Your task to perform on an android device: Go to accessibility settings Image 0: 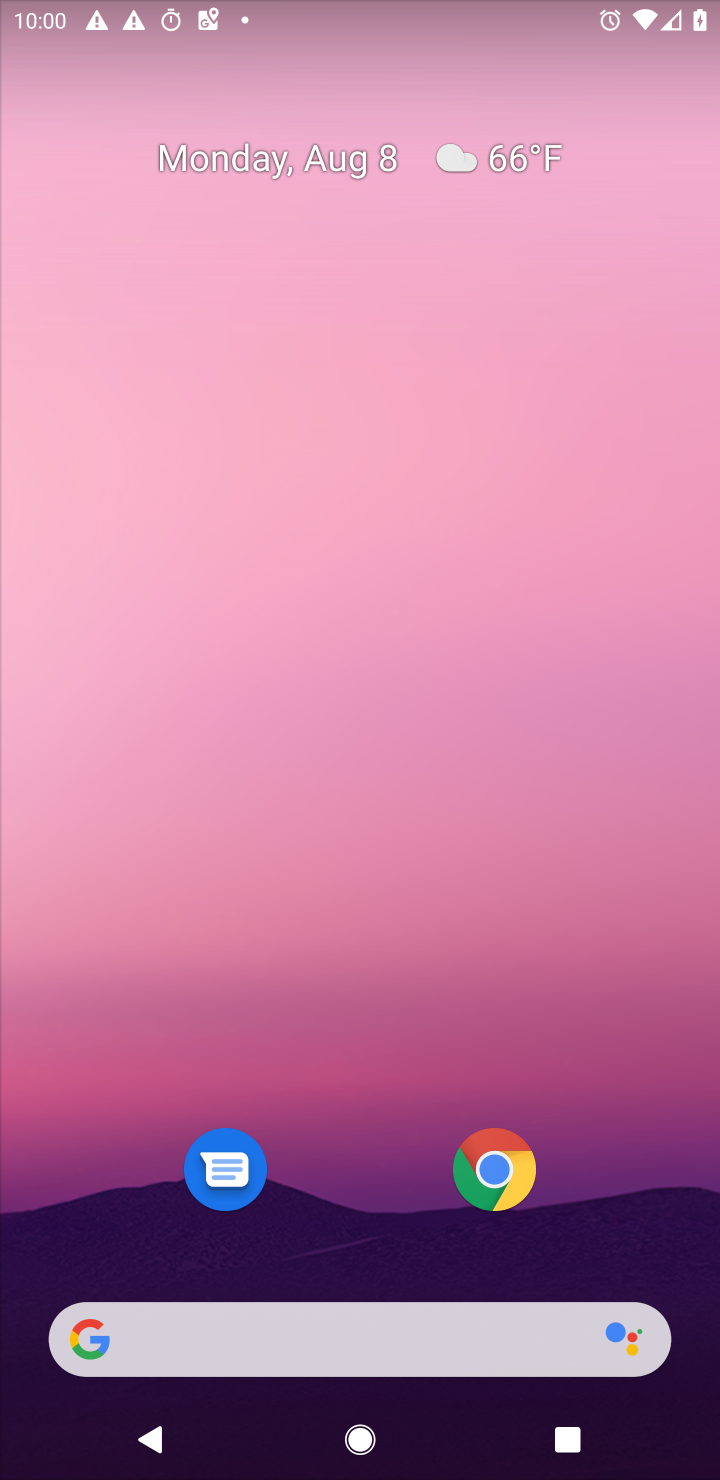
Step 0: drag from (406, 1208) to (509, 168)
Your task to perform on an android device: Go to accessibility settings Image 1: 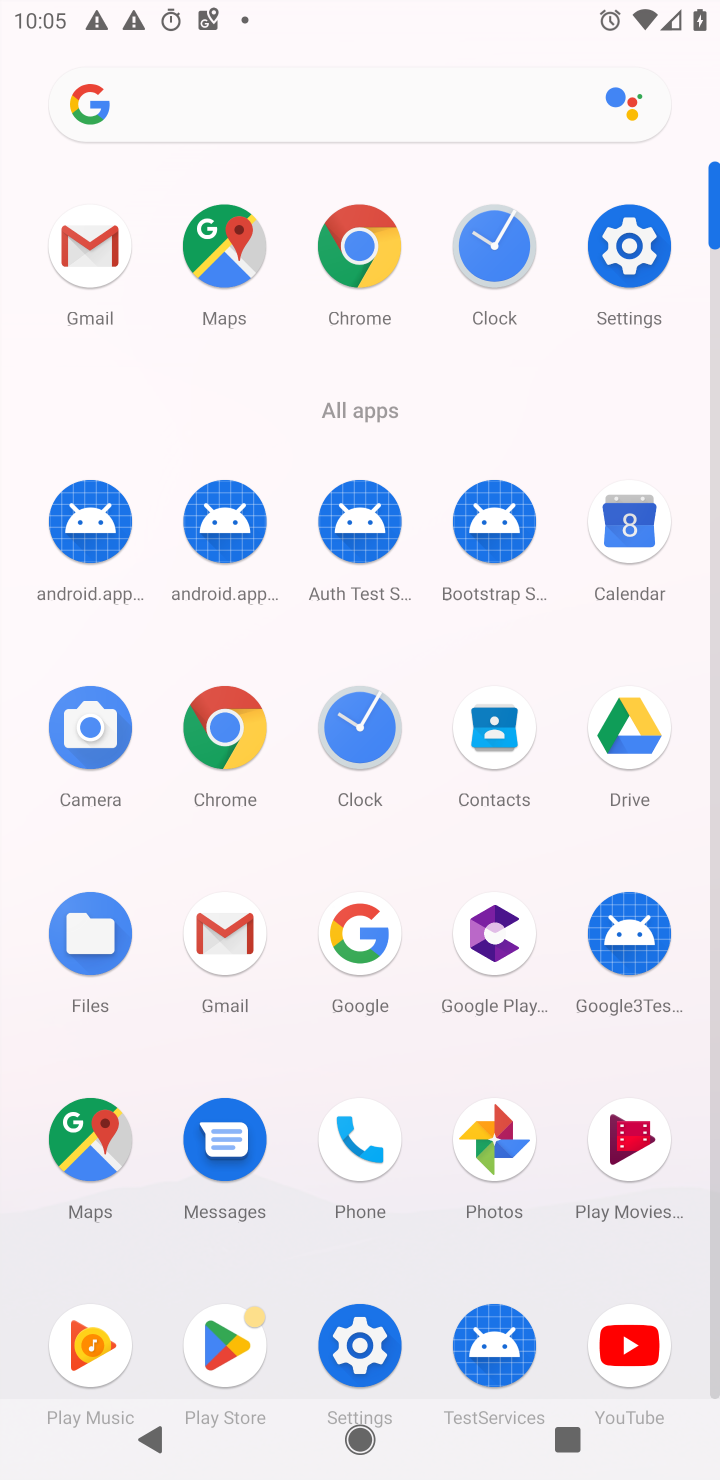
Step 1: click (601, 239)
Your task to perform on an android device: Go to accessibility settings Image 2: 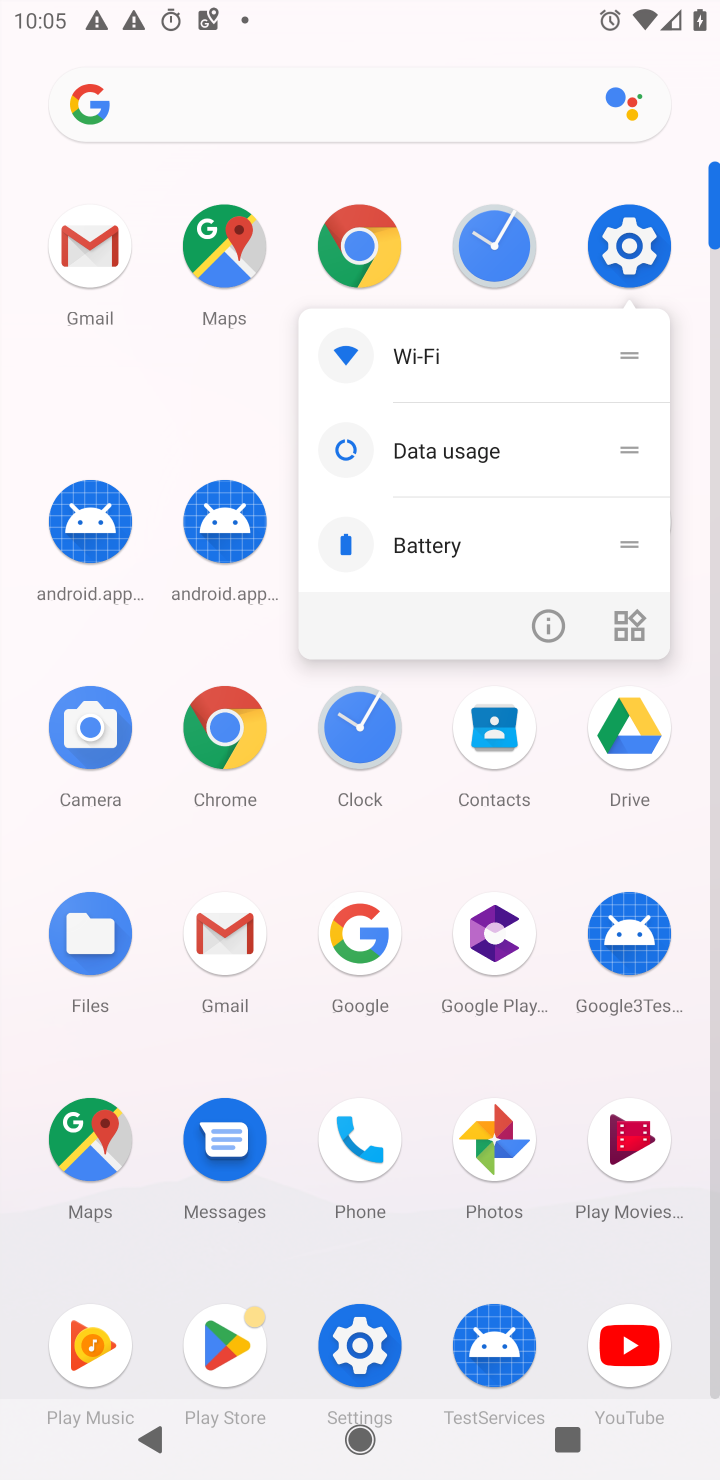
Step 2: click (617, 271)
Your task to perform on an android device: Go to accessibility settings Image 3: 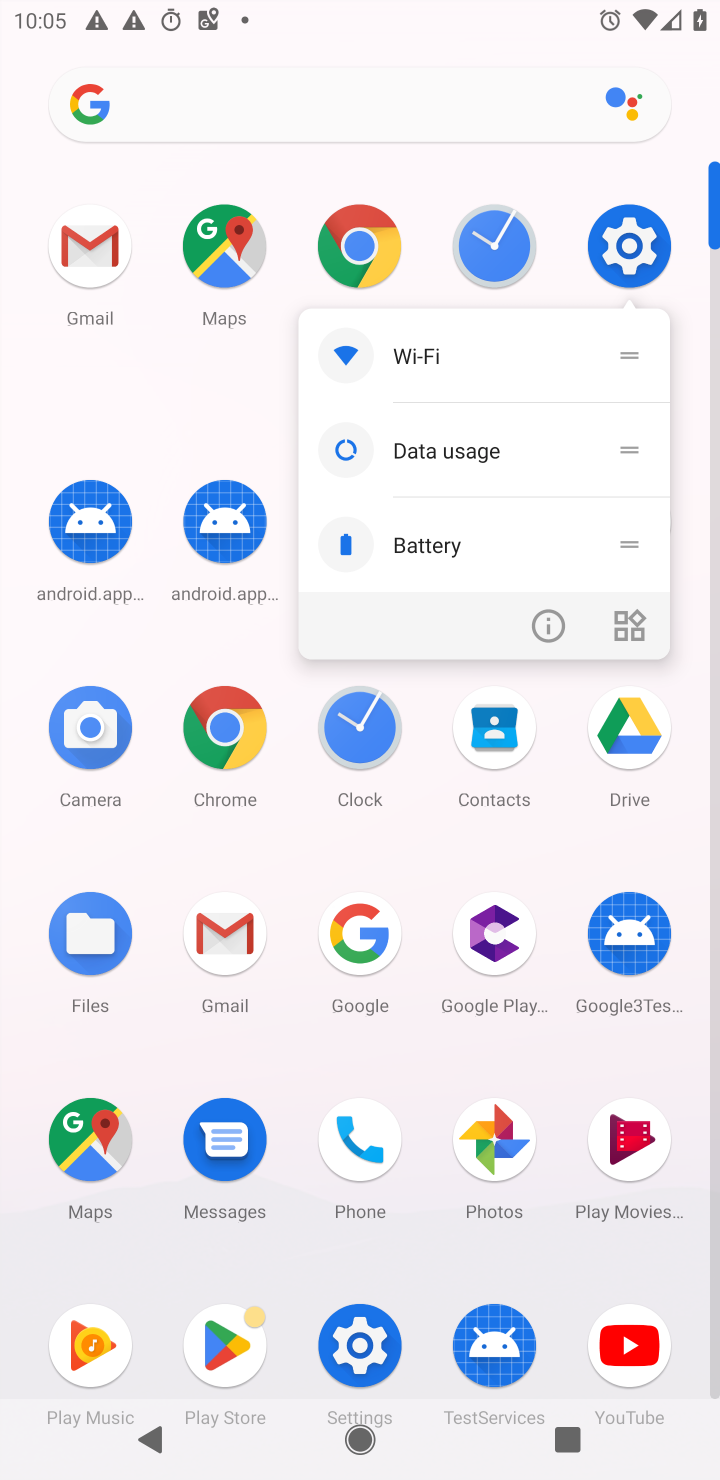
Step 3: click (636, 262)
Your task to perform on an android device: Go to accessibility settings Image 4: 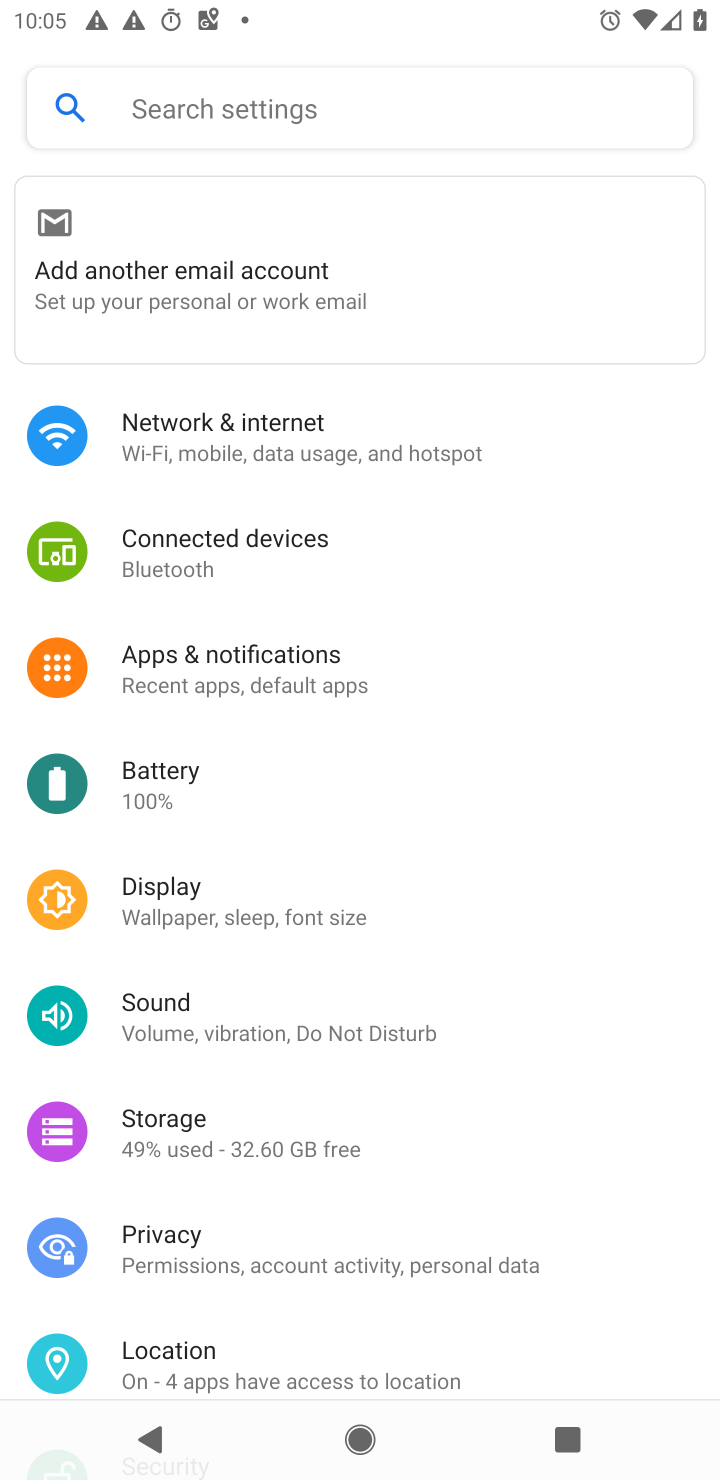
Step 4: drag from (285, 1074) to (539, 72)
Your task to perform on an android device: Go to accessibility settings Image 5: 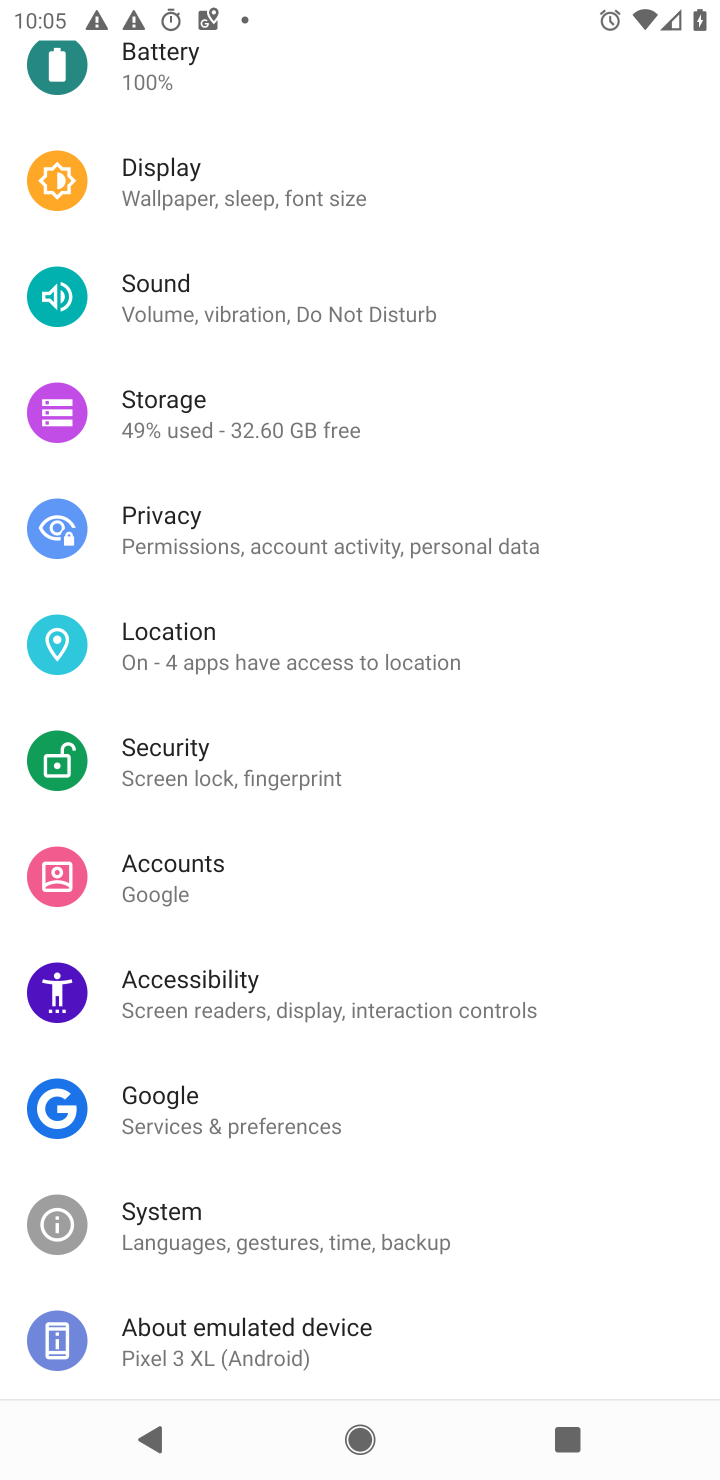
Step 5: click (217, 1187)
Your task to perform on an android device: Go to accessibility settings Image 6: 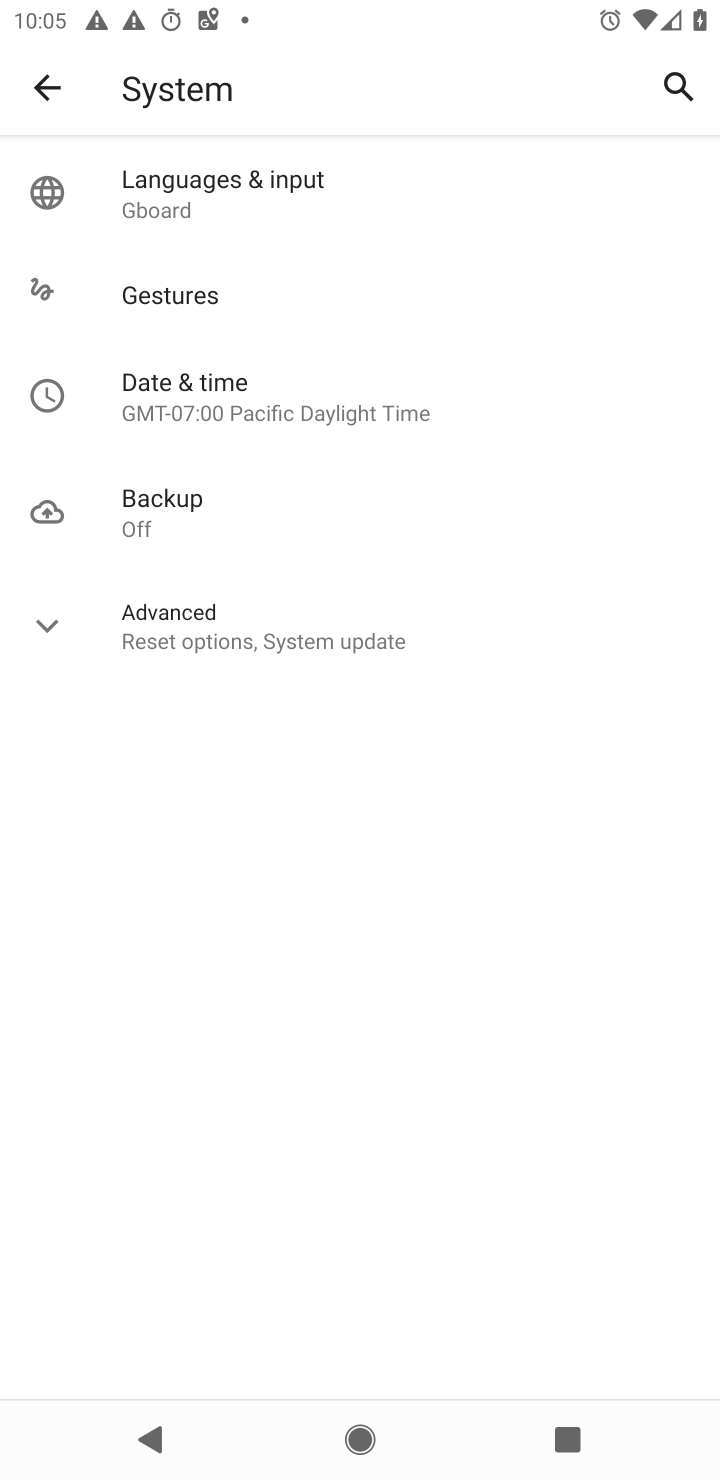
Step 6: click (50, 90)
Your task to perform on an android device: Go to accessibility settings Image 7: 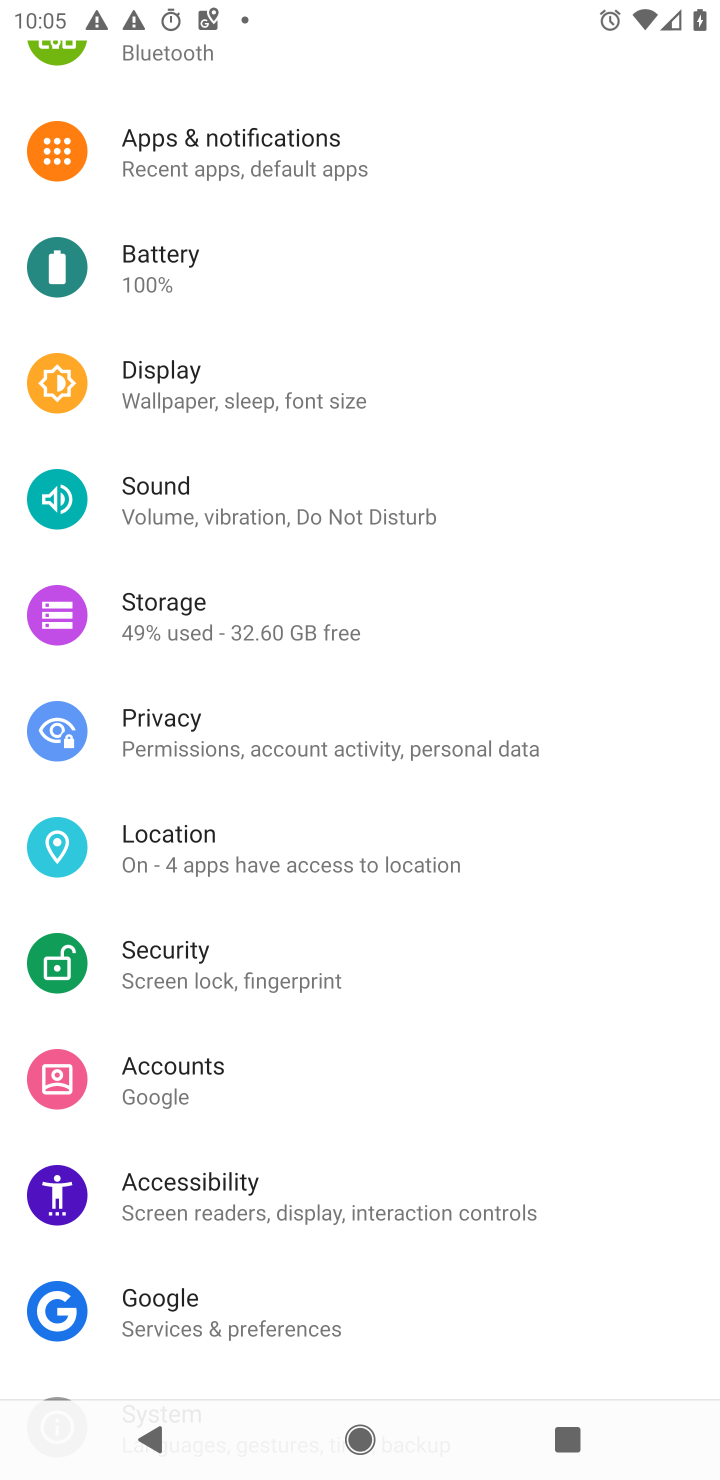
Step 7: click (191, 1194)
Your task to perform on an android device: Go to accessibility settings Image 8: 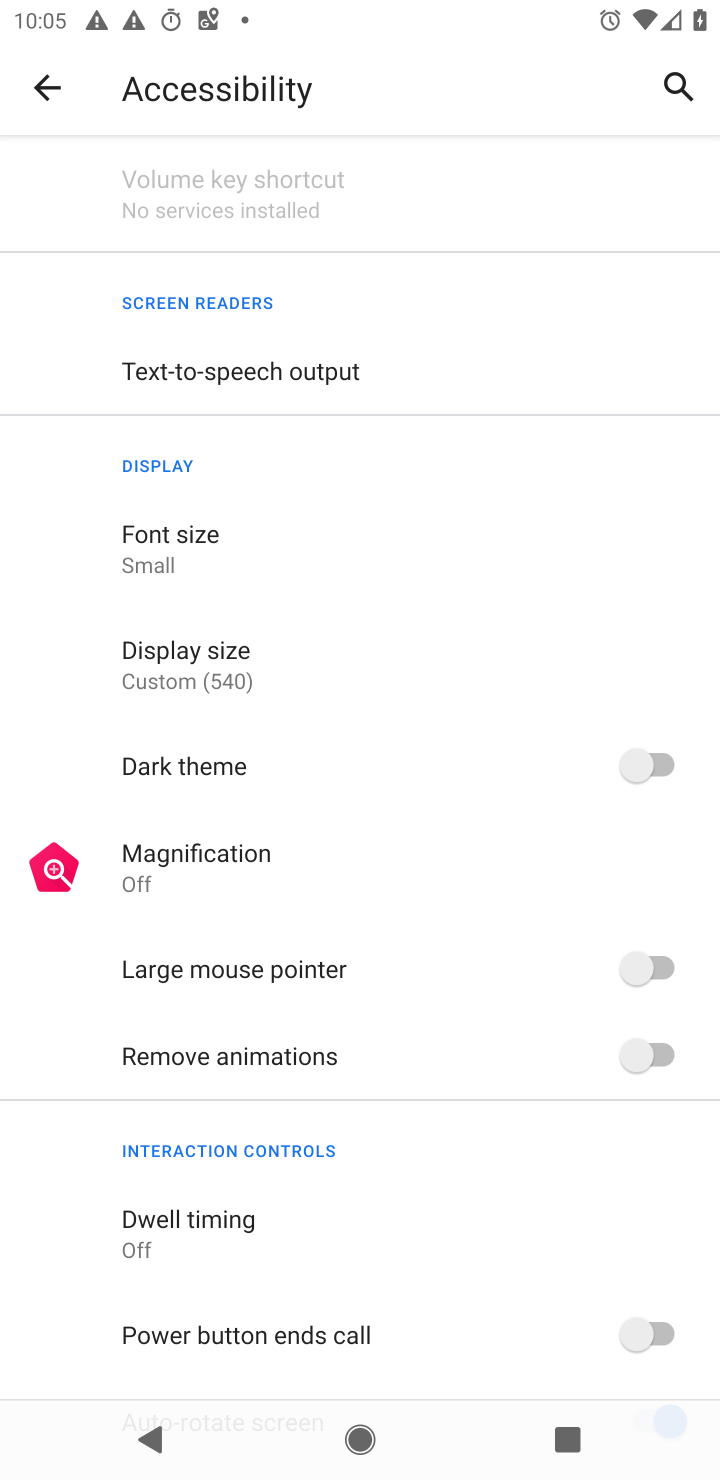
Step 8: task complete